Your task to perform on an android device: Go to Android settings Image 0: 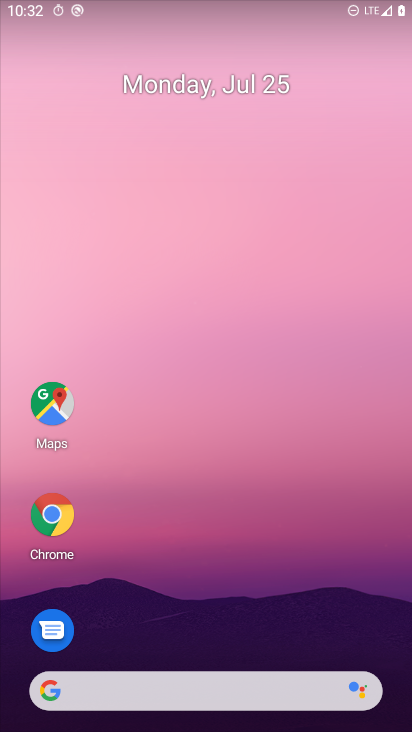
Step 0: drag from (30, 705) to (179, 236)
Your task to perform on an android device: Go to Android settings Image 1: 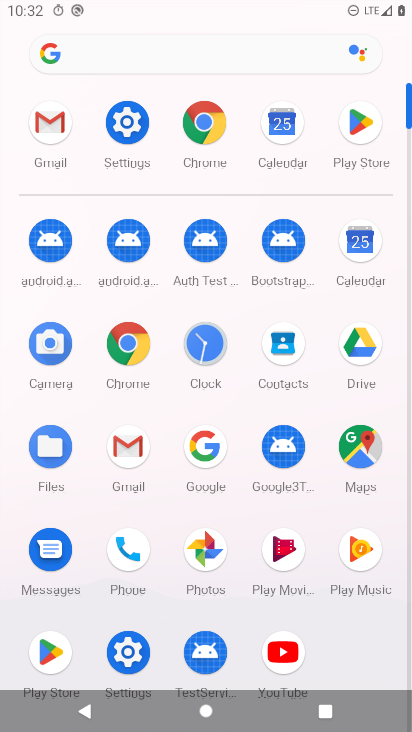
Step 1: click (137, 660)
Your task to perform on an android device: Go to Android settings Image 2: 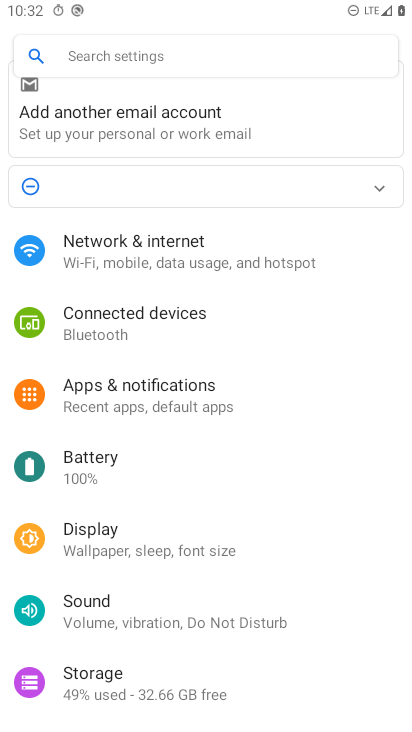
Step 2: drag from (285, 717) to (343, 145)
Your task to perform on an android device: Go to Android settings Image 3: 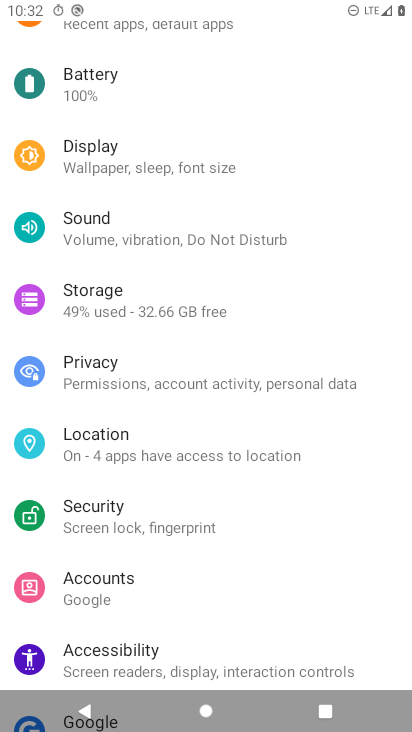
Step 3: drag from (210, 668) to (239, 155)
Your task to perform on an android device: Go to Android settings Image 4: 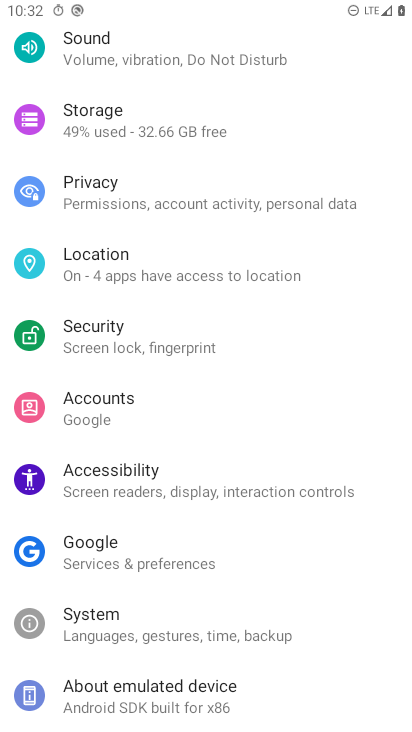
Step 4: click (104, 679)
Your task to perform on an android device: Go to Android settings Image 5: 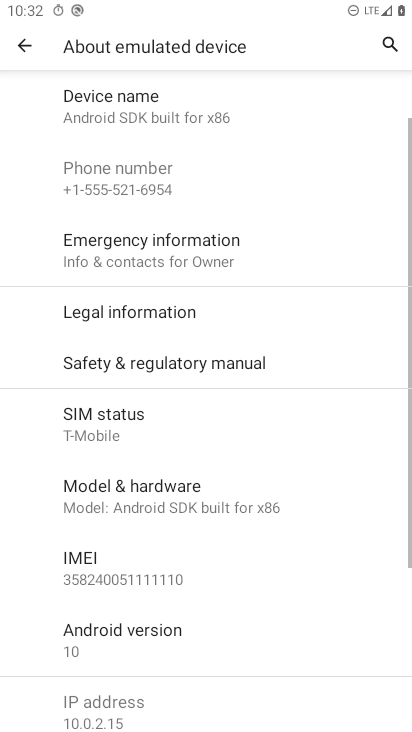
Step 5: click (107, 649)
Your task to perform on an android device: Go to Android settings Image 6: 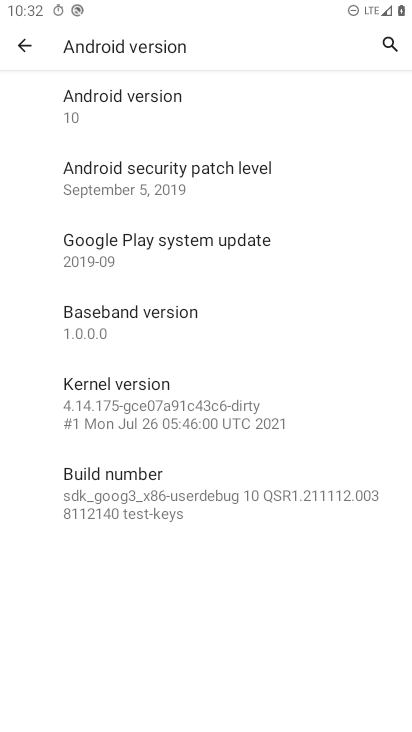
Step 6: task complete